Your task to perform on an android device: Open Yahoo.com Image 0: 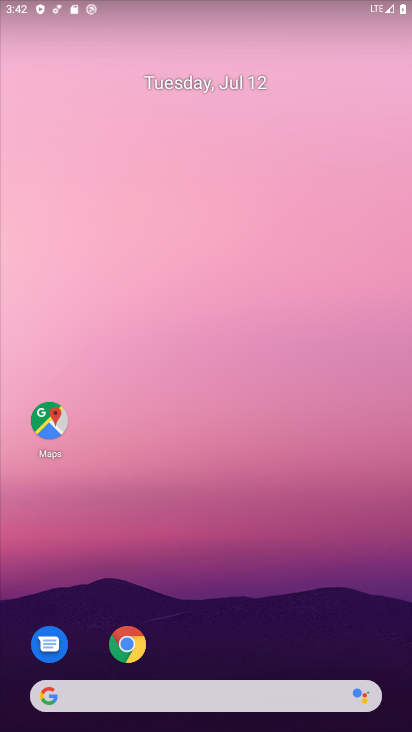
Step 0: click (138, 642)
Your task to perform on an android device: Open Yahoo.com Image 1: 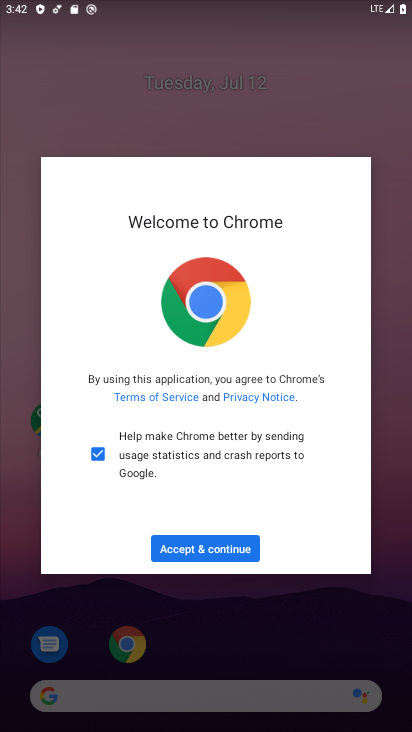
Step 1: click (200, 552)
Your task to perform on an android device: Open Yahoo.com Image 2: 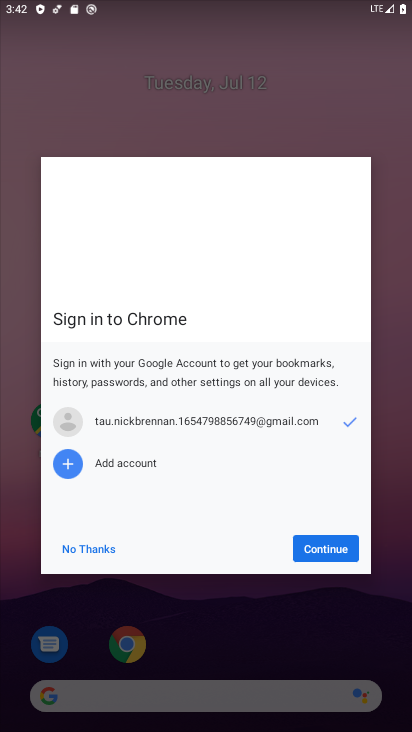
Step 2: click (200, 552)
Your task to perform on an android device: Open Yahoo.com Image 3: 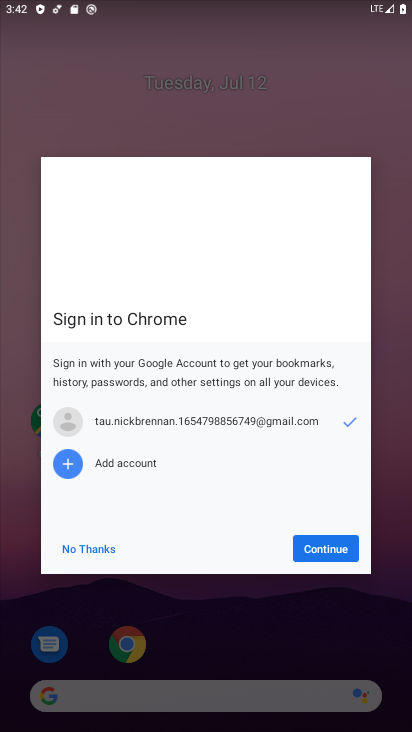
Step 3: click (68, 556)
Your task to perform on an android device: Open Yahoo.com Image 4: 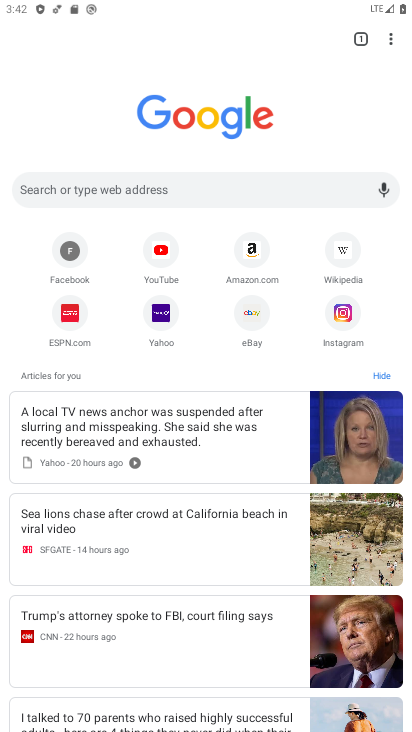
Step 4: click (159, 322)
Your task to perform on an android device: Open Yahoo.com Image 5: 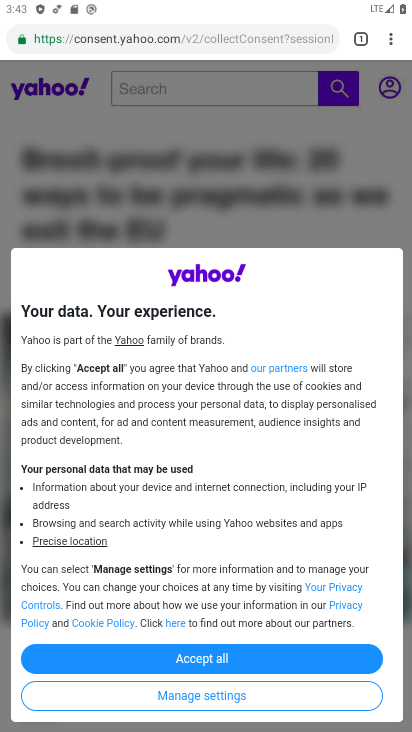
Step 5: click (213, 664)
Your task to perform on an android device: Open Yahoo.com Image 6: 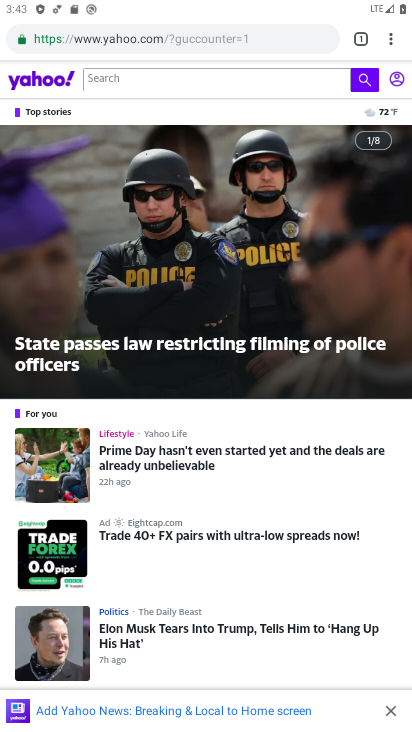
Step 6: task complete